Your task to perform on an android device: turn off location history Image 0: 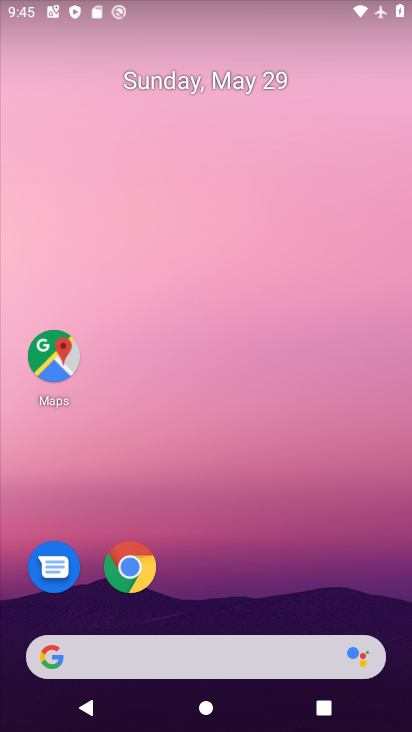
Step 0: click (56, 358)
Your task to perform on an android device: turn off location history Image 1: 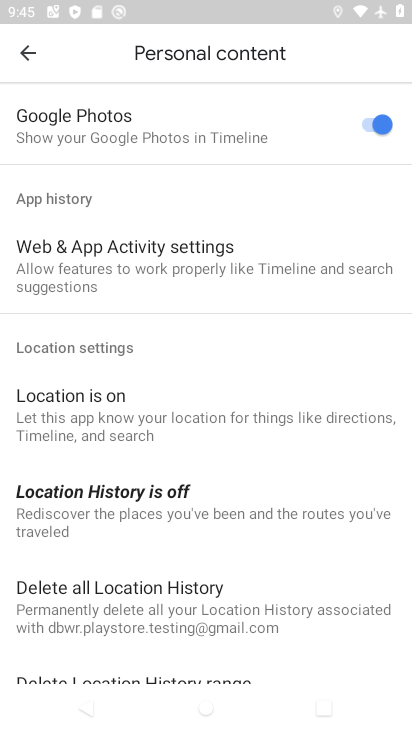
Step 1: task complete